Your task to perform on an android device: turn on the 12-hour format for clock Image 0: 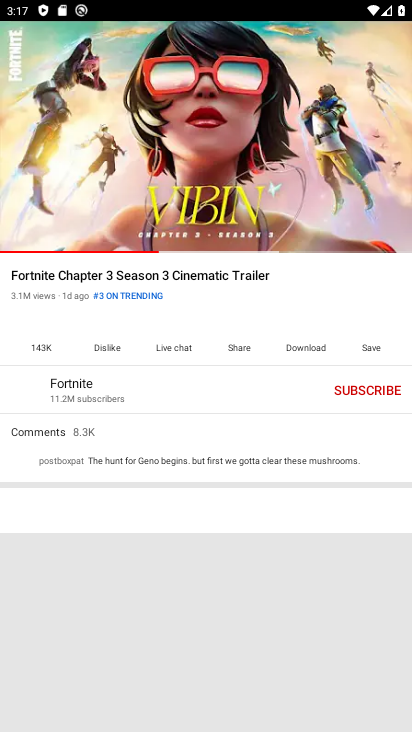
Step 0: press home button
Your task to perform on an android device: turn on the 12-hour format for clock Image 1: 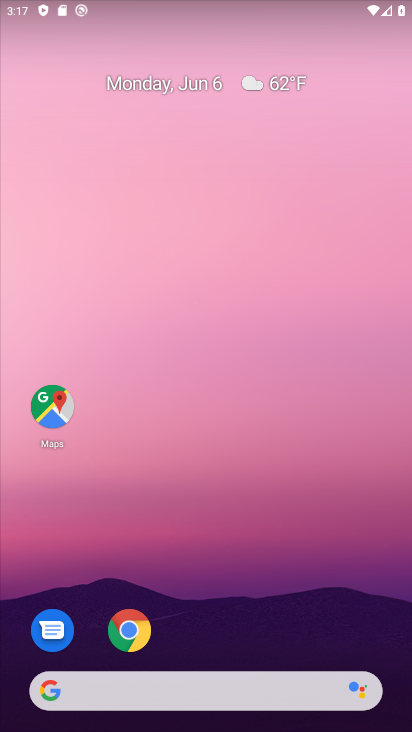
Step 1: drag from (265, 634) to (292, 61)
Your task to perform on an android device: turn on the 12-hour format for clock Image 2: 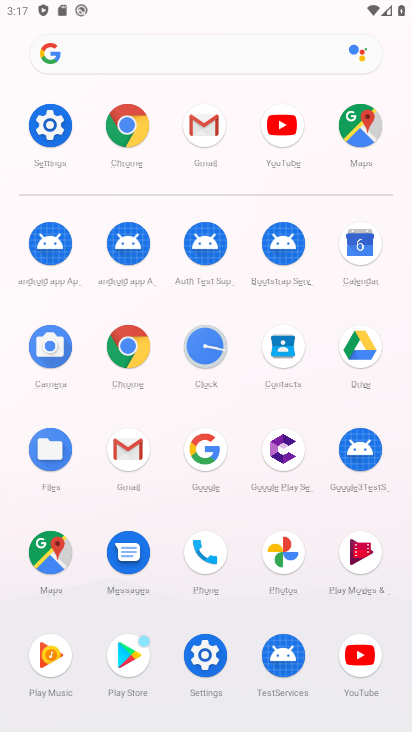
Step 2: click (193, 368)
Your task to perform on an android device: turn on the 12-hour format for clock Image 3: 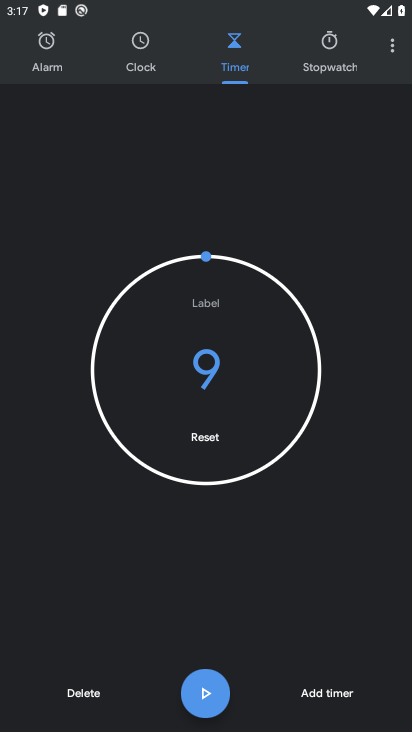
Step 3: click (377, 48)
Your task to perform on an android device: turn on the 12-hour format for clock Image 4: 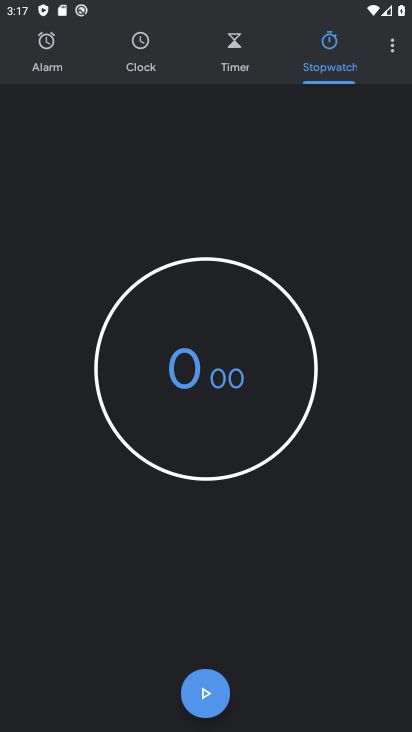
Step 4: click (389, 49)
Your task to perform on an android device: turn on the 12-hour format for clock Image 5: 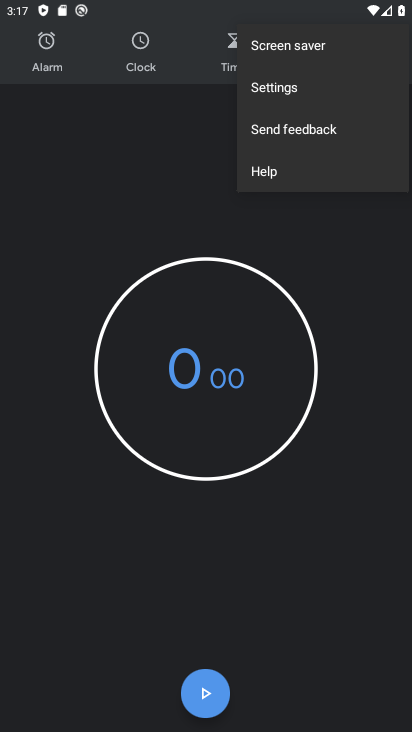
Step 5: click (276, 94)
Your task to perform on an android device: turn on the 12-hour format for clock Image 6: 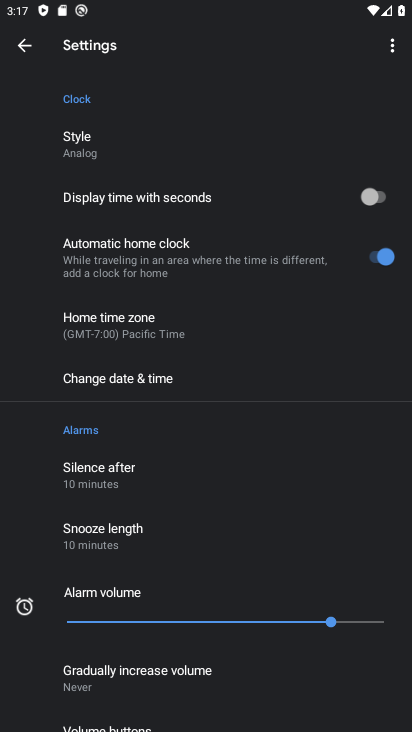
Step 6: click (108, 377)
Your task to perform on an android device: turn on the 12-hour format for clock Image 7: 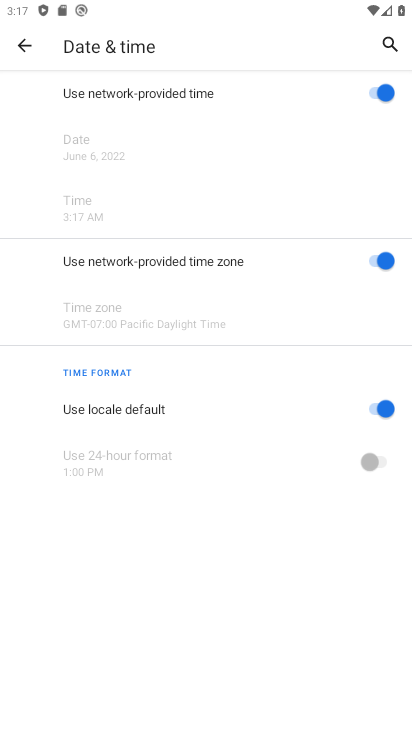
Step 7: click (224, 383)
Your task to perform on an android device: turn on the 12-hour format for clock Image 8: 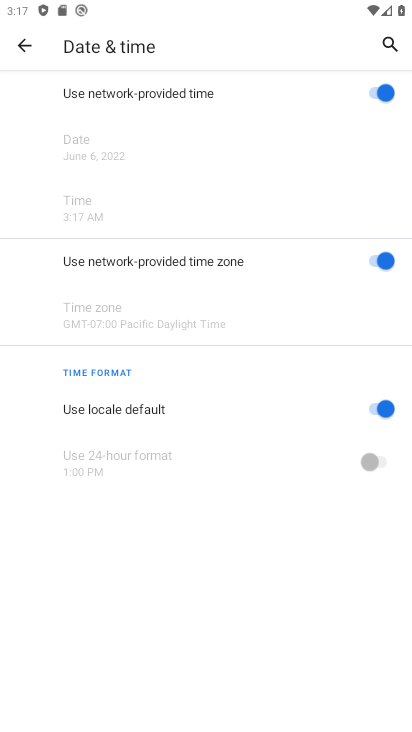
Step 8: click (207, 407)
Your task to perform on an android device: turn on the 12-hour format for clock Image 9: 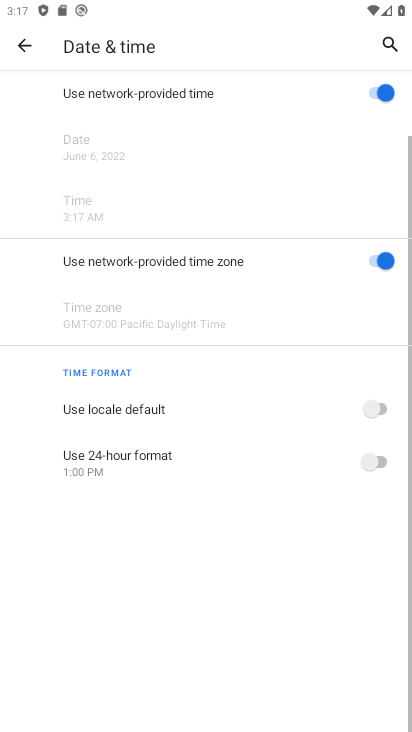
Step 9: click (176, 454)
Your task to perform on an android device: turn on the 12-hour format for clock Image 10: 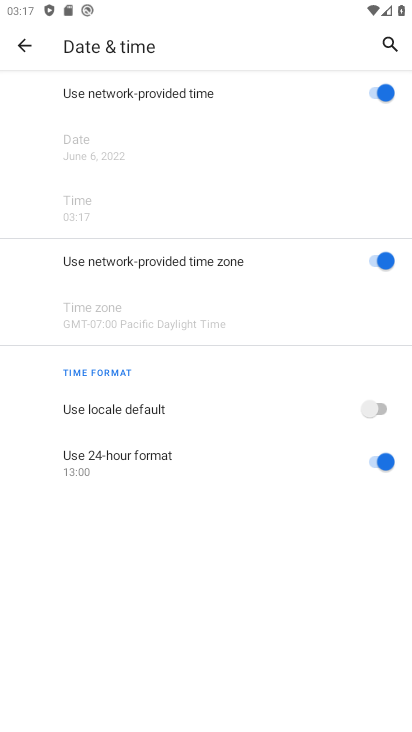
Step 10: task complete